Your task to perform on an android device: Is it going to rain tomorrow? Image 0: 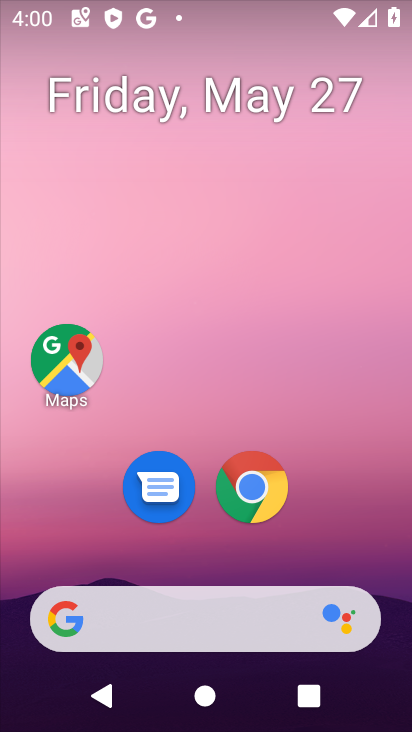
Step 0: drag from (324, 472) to (314, 54)
Your task to perform on an android device: Is it going to rain tomorrow? Image 1: 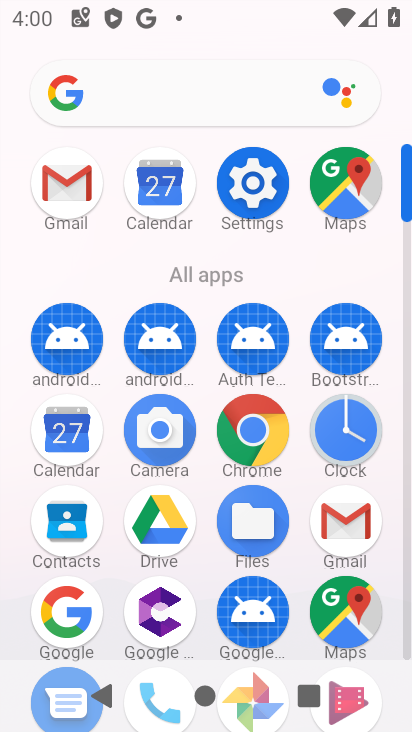
Step 1: click (250, 446)
Your task to perform on an android device: Is it going to rain tomorrow? Image 2: 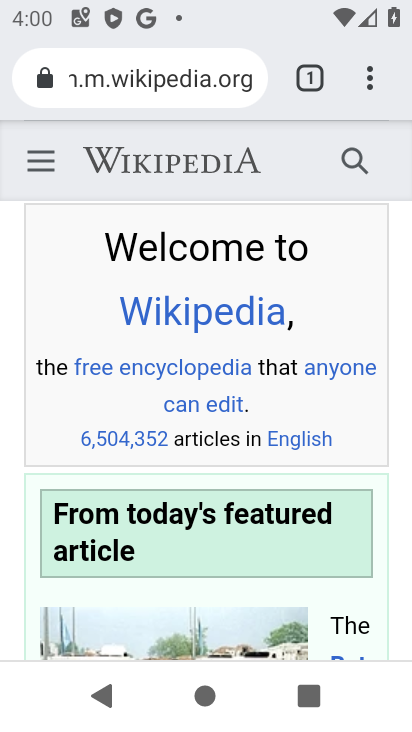
Step 2: click (211, 63)
Your task to perform on an android device: Is it going to rain tomorrow? Image 3: 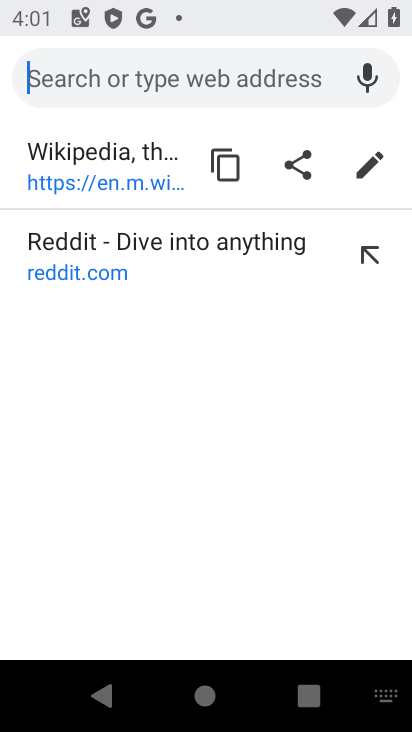
Step 3: type "weather"
Your task to perform on an android device: Is it going to rain tomorrow? Image 4: 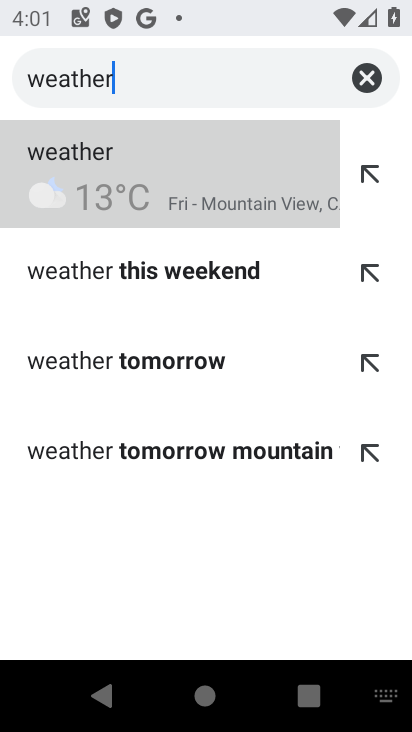
Step 4: click (180, 190)
Your task to perform on an android device: Is it going to rain tomorrow? Image 5: 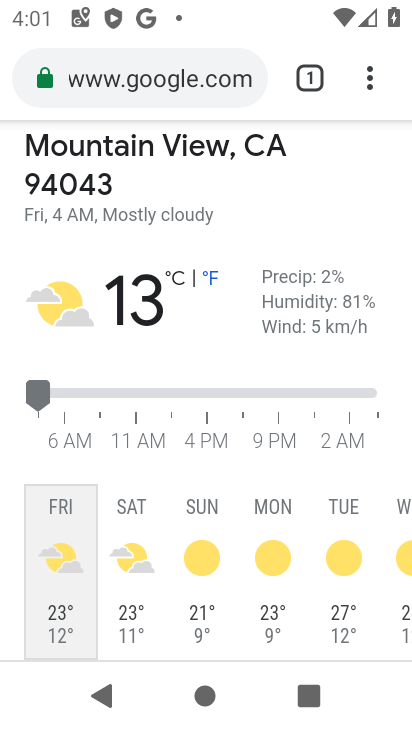
Step 5: drag from (260, 416) to (318, 208)
Your task to perform on an android device: Is it going to rain tomorrow? Image 6: 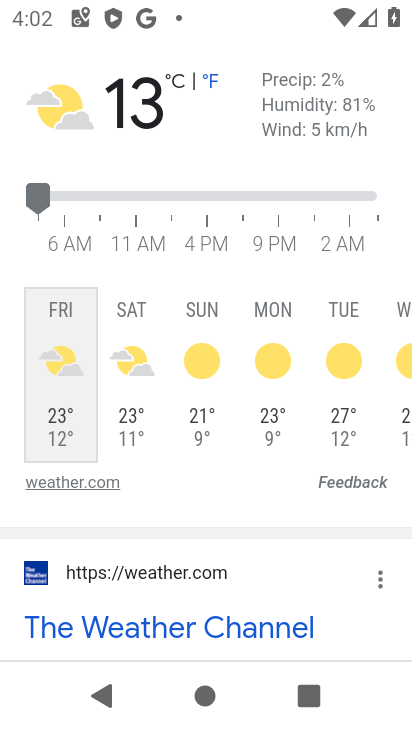
Step 6: click (134, 345)
Your task to perform on an android device: Is it going to rain tomorrow? Image 7: 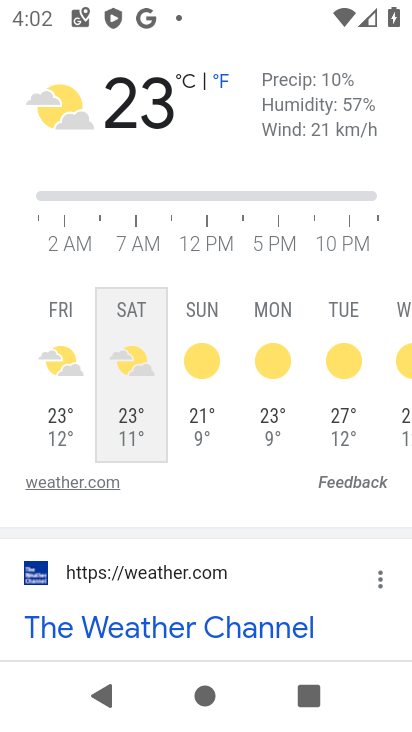
Step 7: task complete